Your task to perform on an android device: turn off data saver in the chrome app Image 0: 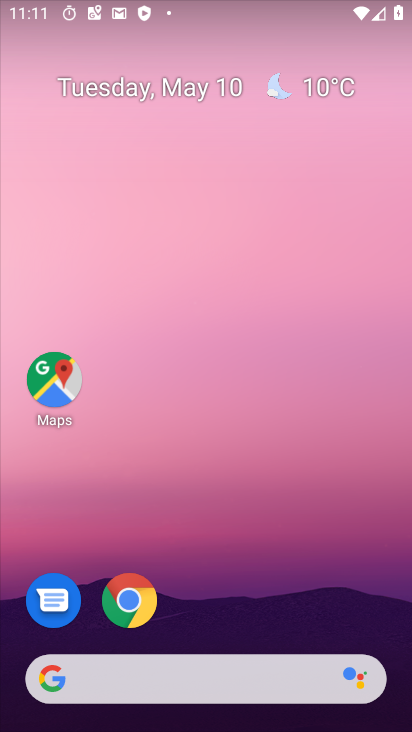
Step 0: drag from (237, 479) to (186, 9)
Your task to perform on an android device: turn off data saver in the chrome app Image 1: 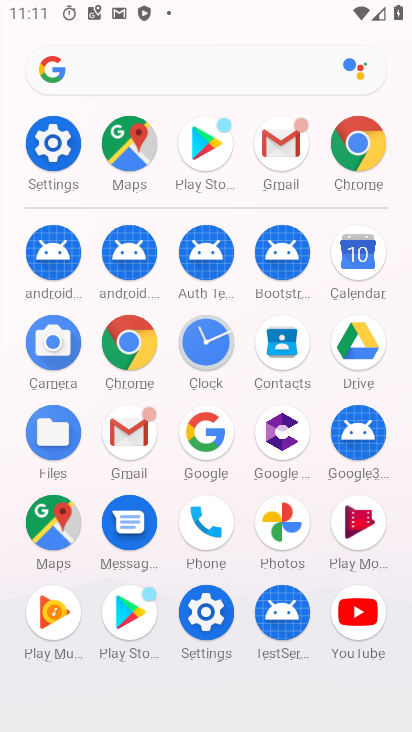
Step 1: drag from (10, 554) to (7, 166)
Your task to perform on an android device: turn off data saver in the chrome app Image 2: 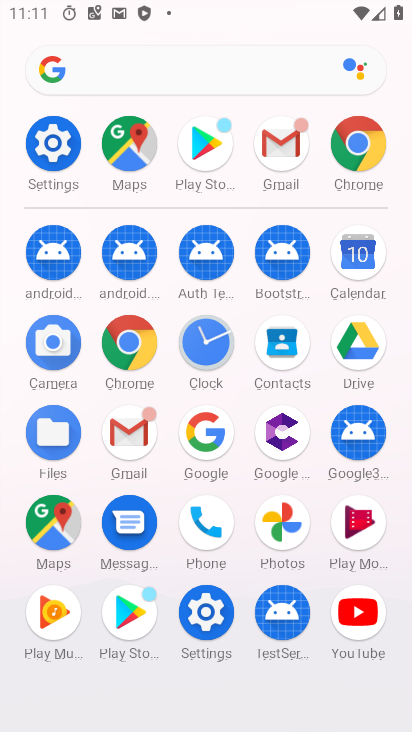
Step 2: click (356, 136)
Your task to perform on an android device: turn off data saver in the chrome app Image 3: 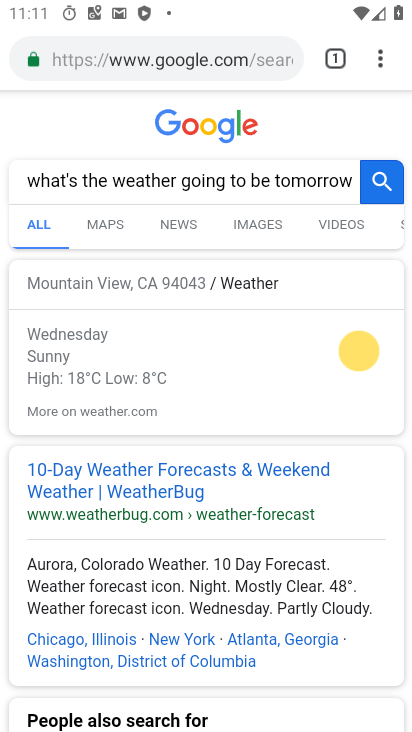
Step 3: drag from (378, 46) to (196, 624)
Your task to perform on an android device: turn off data saver in the chrome app Image 4: 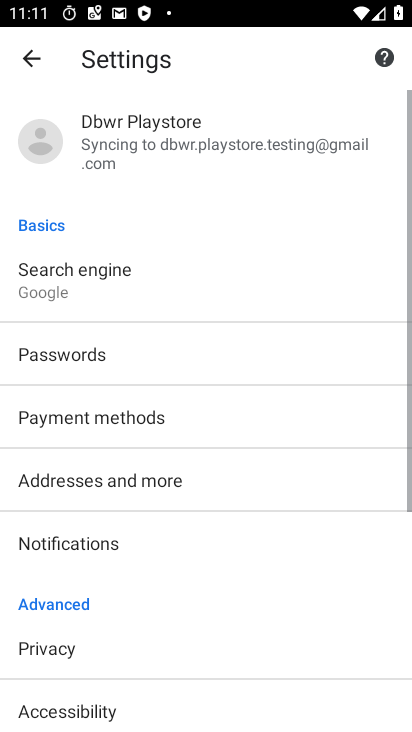
Step 4: drag from (197, 609) to (201, 219)
Your task to perform on an android device: turn off data saver in the chrome app Image 5: 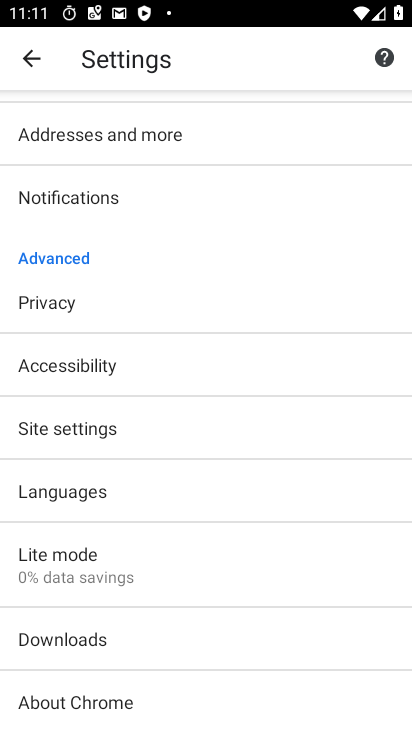
Step 5: click (197, 563)
Your task to perform on an android device: turn off data saver in the chrome app Image 6: 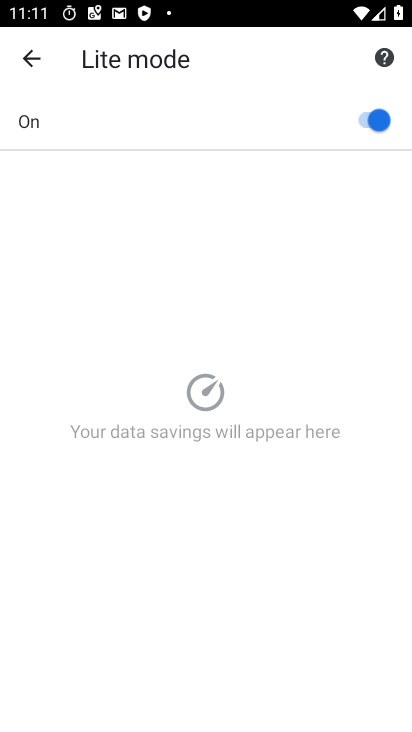
Step 6: click (368, 113)
Your task to perform on an android device: turn off data saver in the chrome app Image 7: 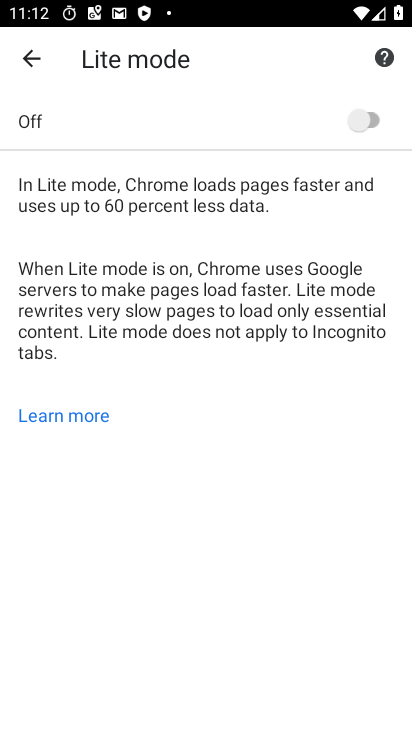
Step 7: task complete